Your task to perform on an android device: uninstall "Move to iOS" Image 0: 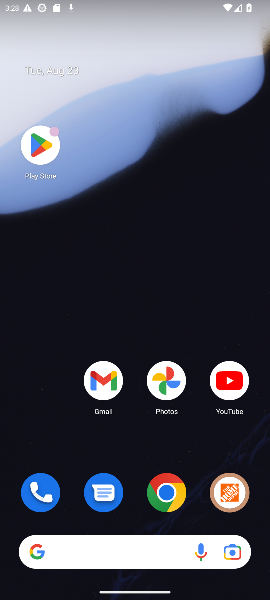
Step 0: drag from (130, 517) to (118, 178)
Your task to perform on an android device: uninstall "Move to iOS" Image 1: 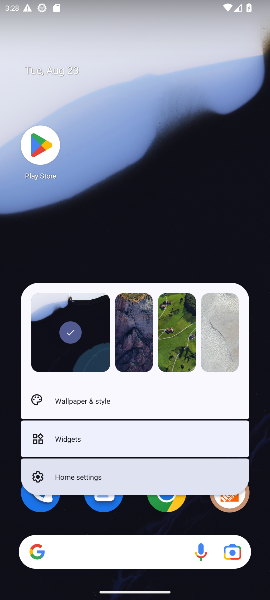
Step 1: click (118, 174)
Your task to perform on an android device: uninstall "Move to iOS" Image 2: 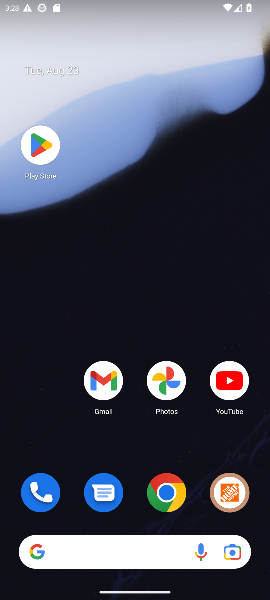
Step 2: click (43, 155)
Your task to perform on an android device: uninstall "Move to iOS" Image 3: 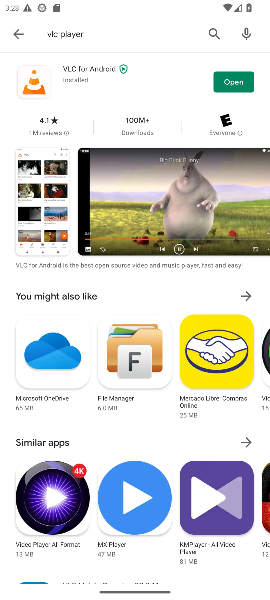
Step 3: click (211, 37)
Your task to perform on an android device: uninstall "Move to iOS" Image 4: 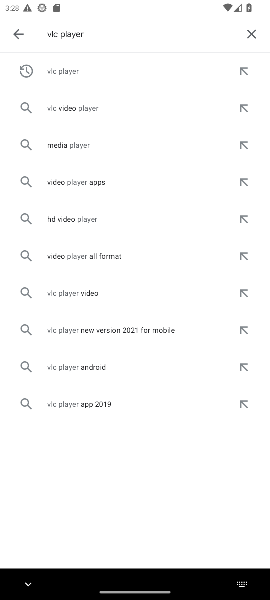
Step 4: click (247, 34)
Your task to perform on an android device: uninstall "Move to iOS" Image 5: 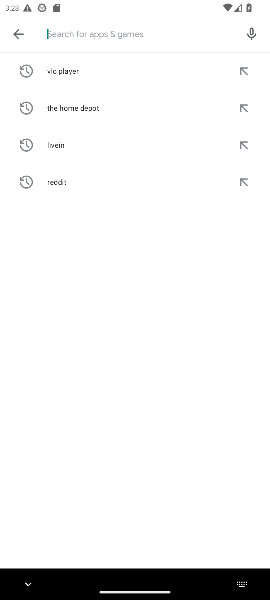
Step 5: type "move iso"
Your task to perform on an android device: uninstall "Move to iOS" Image 6: 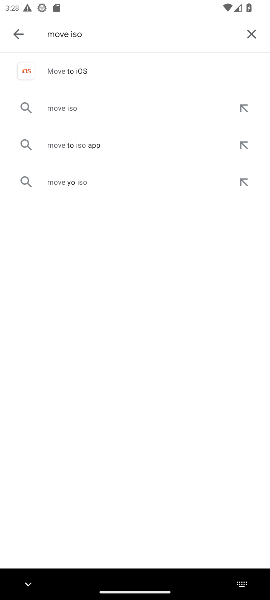
Step 6: click (120, 68)
Your task to perform on an android device: uninstall "Move to iOS" Image 7: 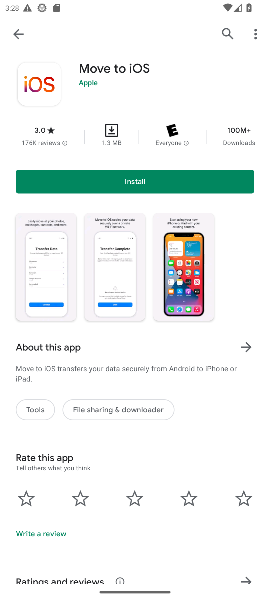
Step 7: click (166, 178)
Your task to perform on an android device: uninstall "Move to iOS" Image 8: 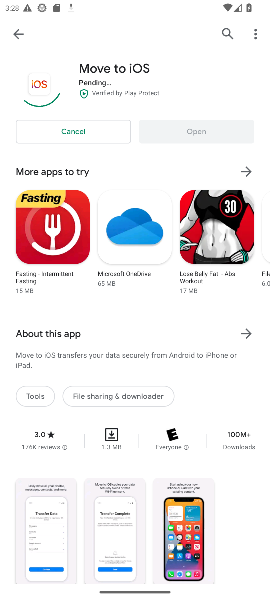
Step 8: task complete